Your task to perform on an android device: change alarm snooze length Image 0: 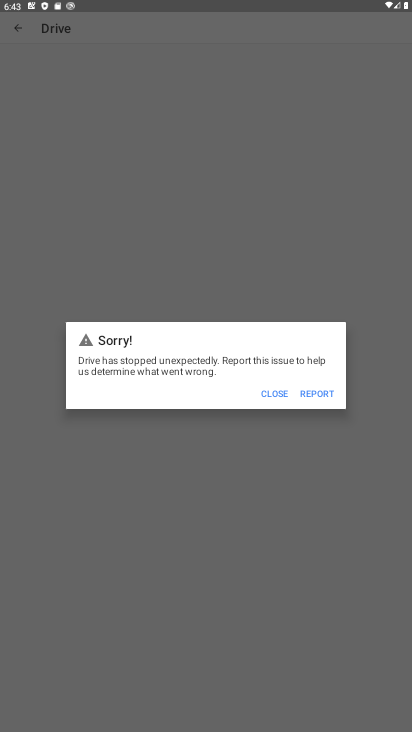
Step 0: press home button
Your task to perform on an android device: change alarm snooze length Image 1: 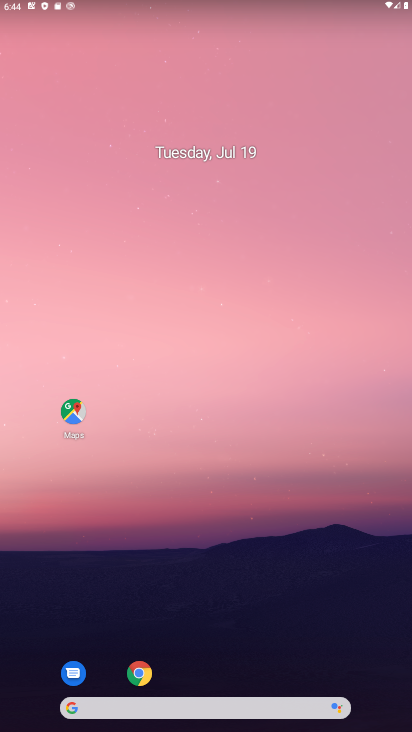
Step 1: drag from (374, 643) to (206, 3)
Your task to perform on an android device: change alarm snooze length Image 2: 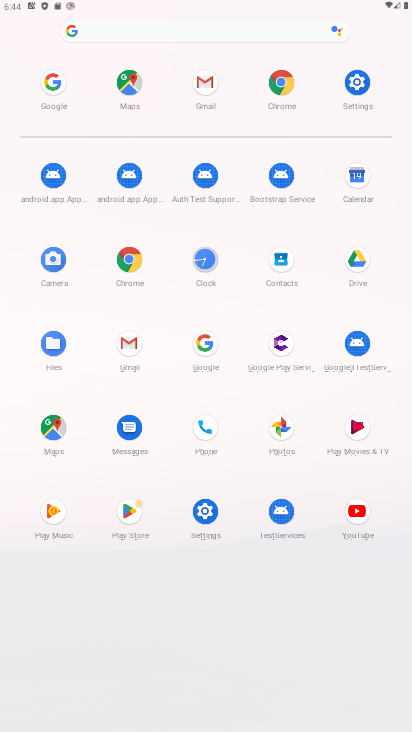
Step 2: click (213, 263)
Your task to perform on an android device: change alarm snooze length Image 3: 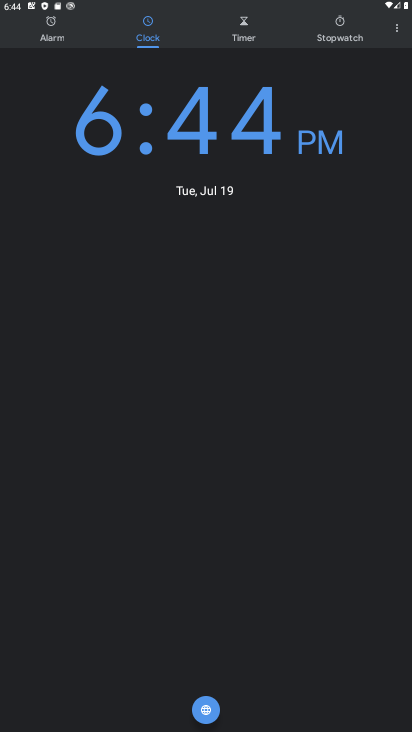
Step 3: click (393, 26)
Your task to perform on an android device: change alarm snooze length Image 4: 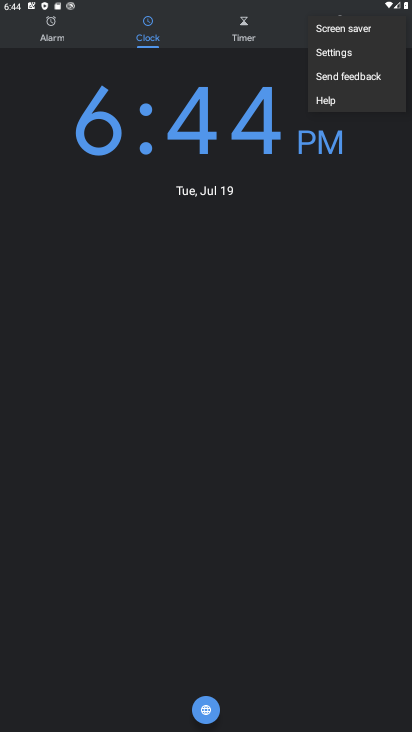
Step 4: click (343, 51)
Your task to perform on an android device: change alarm snooze length Image 5: 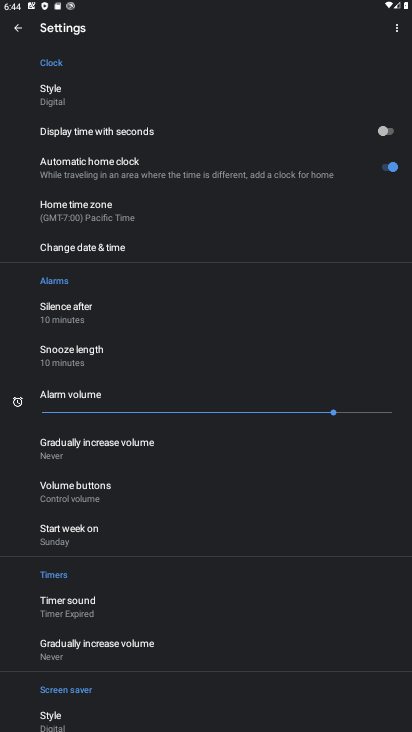
Step 5: click (106, 360)
Your task to perform on an android device: change alarm snooze length Image 6: 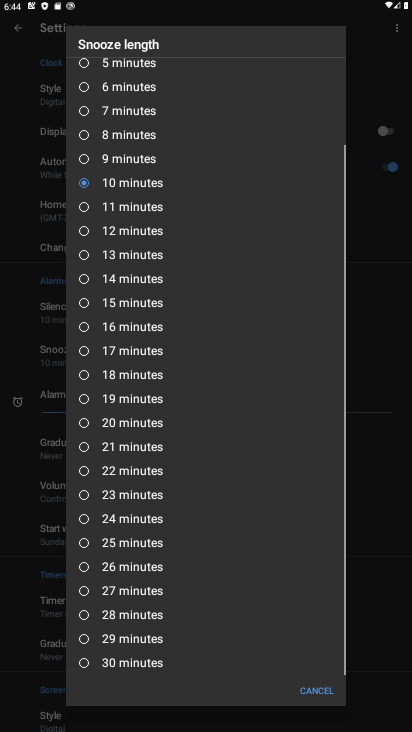
Step 6: click (88, 370)
Your task to perform on an android device: change alarm snooze length Image 7: 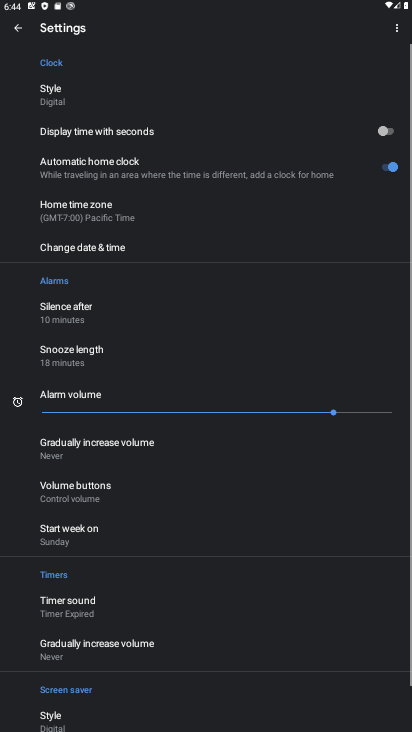
Step 7: task complete